Your task to perform on an android device: check android version Image 0: 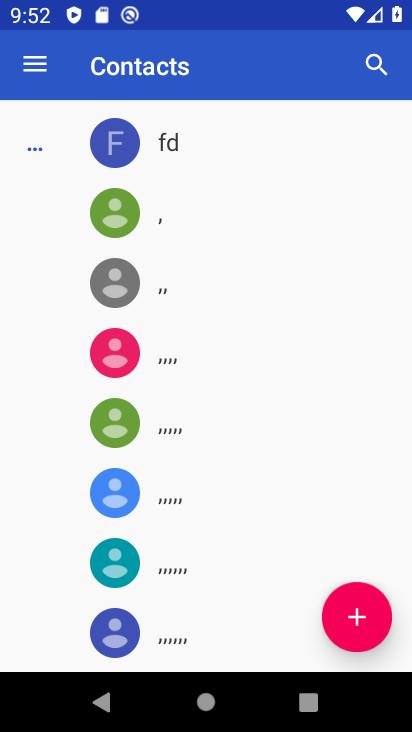
Step 0: press home button
Your task to perform on an android device: check android version Image 1: 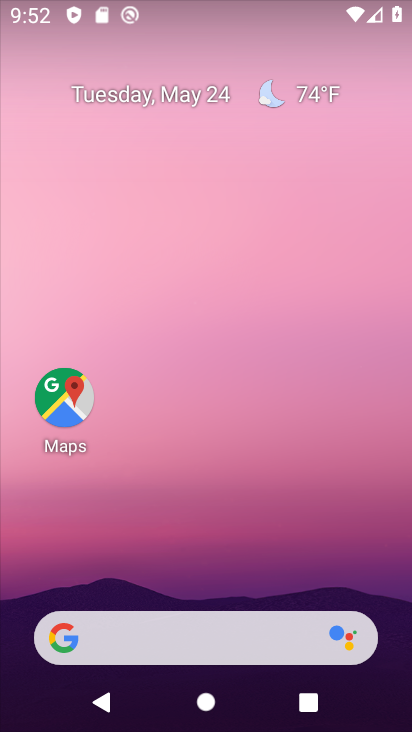
Step 1: drag from (202, 576) to (92, 64)
Your task to perform on an android device: check android version Image 2: 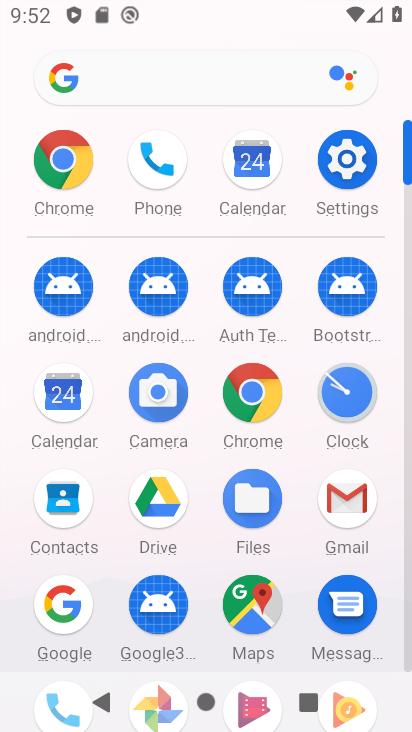
Step 2: click (345, 179)
Your task to perform on an android device: check android version Image 3: 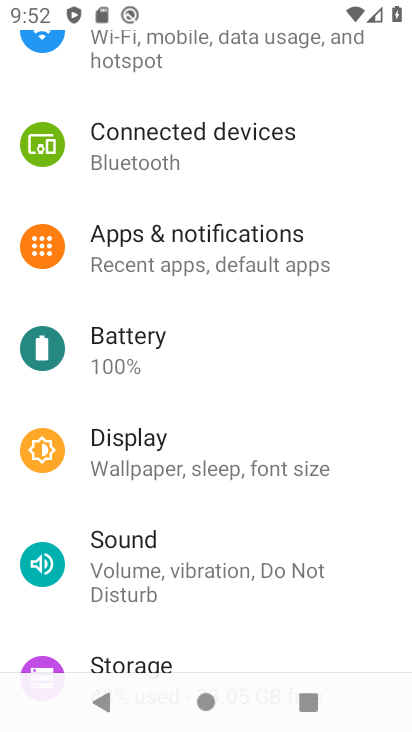
Step 3: drag from (255, 611) to (193, 78)
Your task to perform on an android device: check android version Image 4: 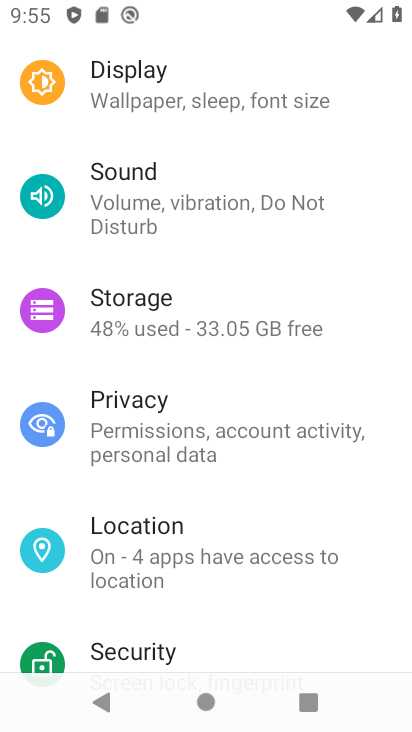
Step 4: drag from (288, 530) to (179, 92)
Your task to perform on an android device: check android version Image 5: 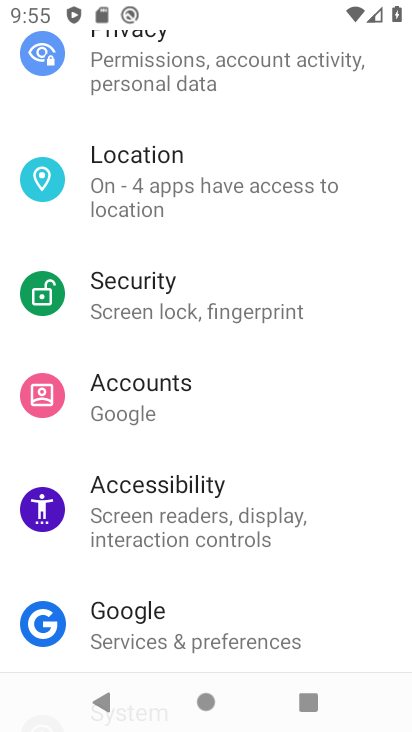
Step 5: drag from (134, 659) to (41, 178)
Your task to perform on an android device: check android version Image 6: 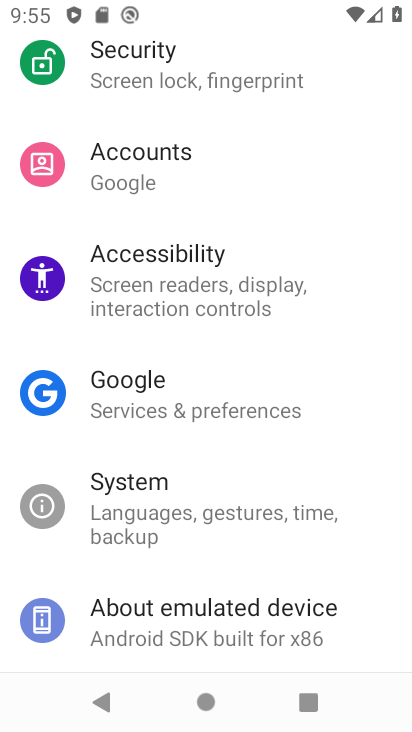
Step 6: click (126, 612)
Your task to perform on an android device: check android version Image 7: 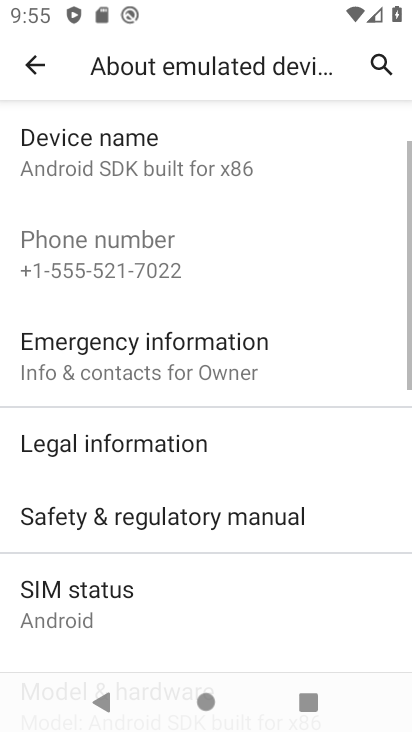
Step 7: drag from (171, 488) to (60, 86)
Your task to perform on an android device: check android version Image 8: 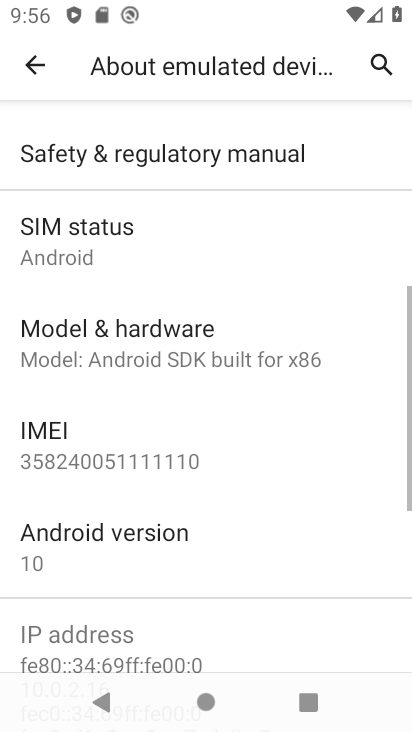
Step 8: click (50, 568)
Your task to perform on an android device: check android version Image 9: 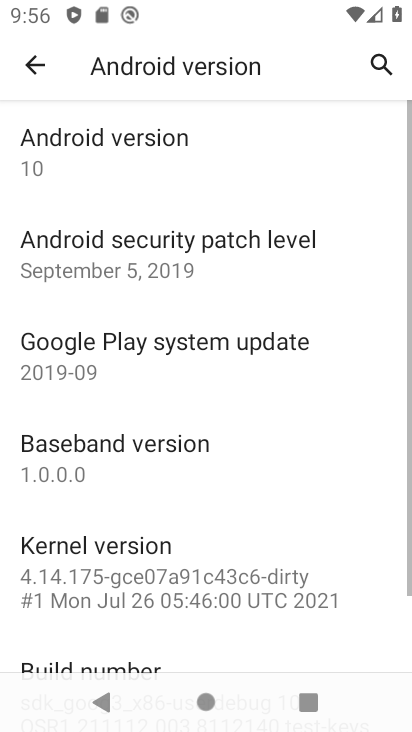
Step 9: task complete